Your task to perform on an android device: turn on location history Image 0: 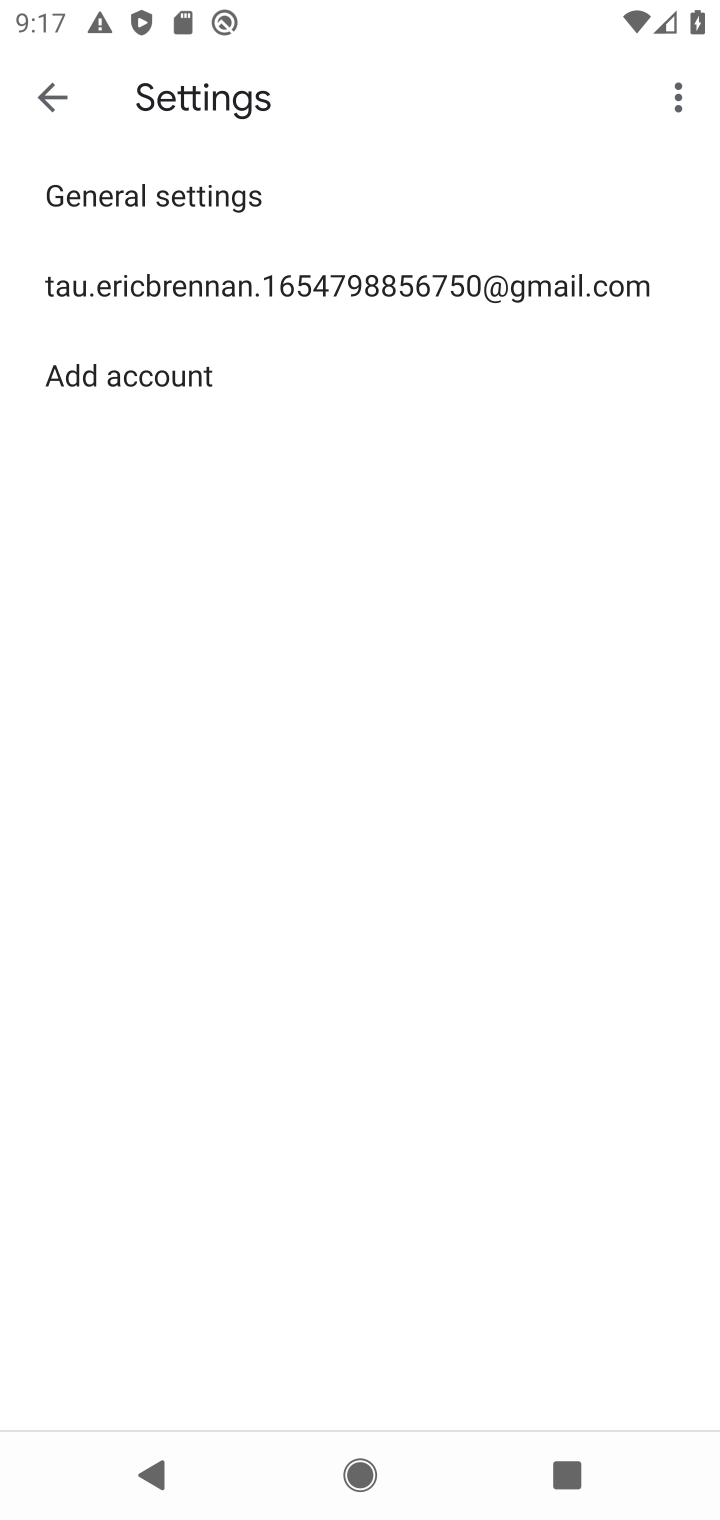
Step 0: press home button
Your task to perform on an android device: turn on location history Image 1: 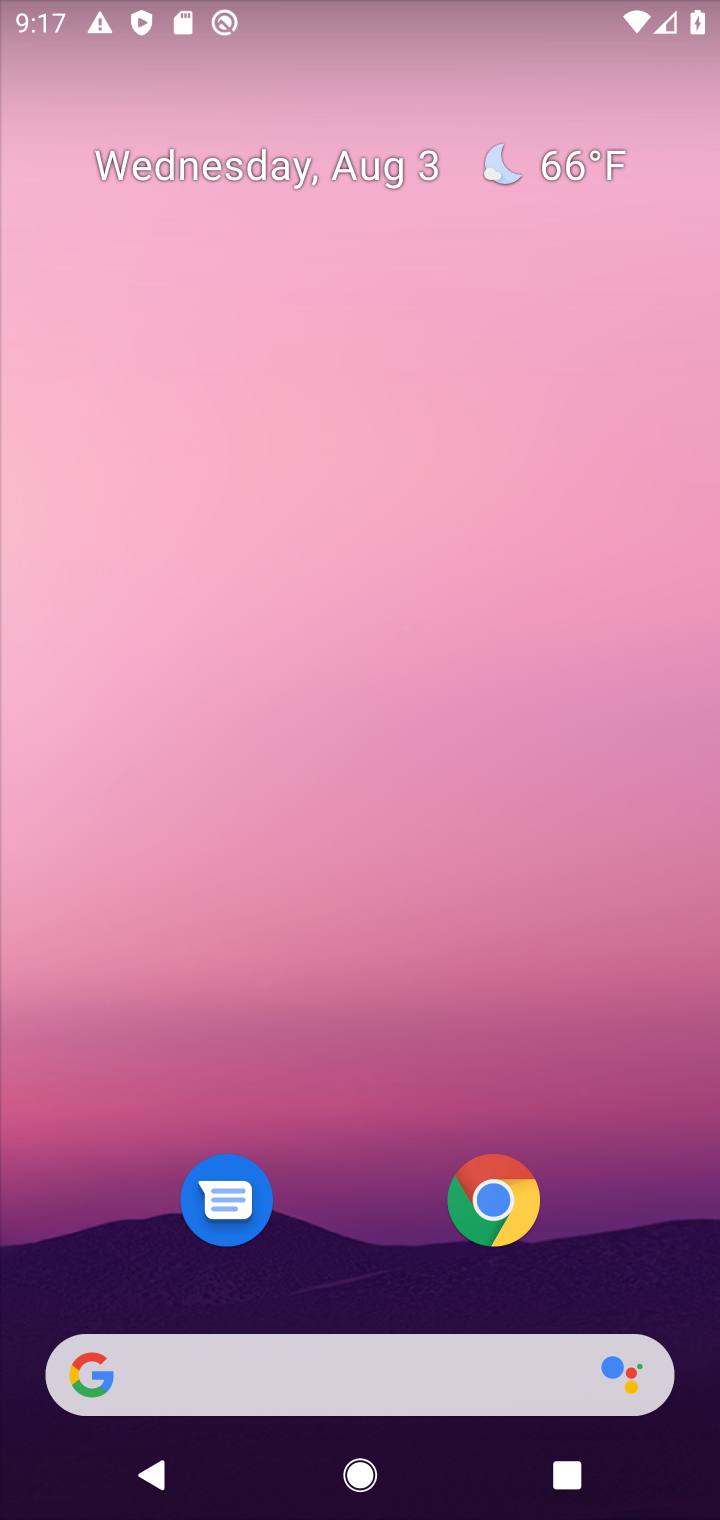
Step 1: drag from (273, 1346) to (358, 302)
Your task to perform on an android device: turn on location history Image 2: 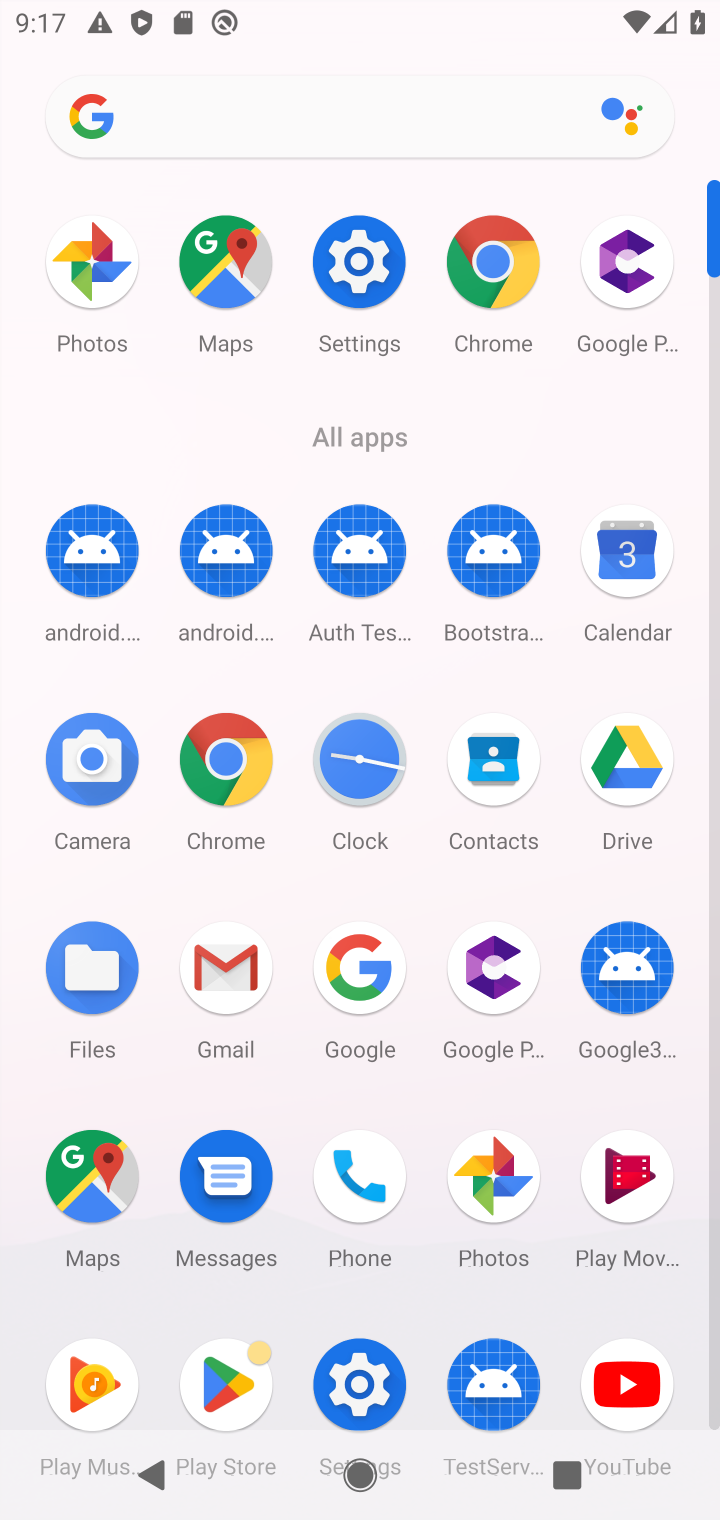
Step 2: click (374, 274)
Your task to perform on an android device: turn on location history Image 3: 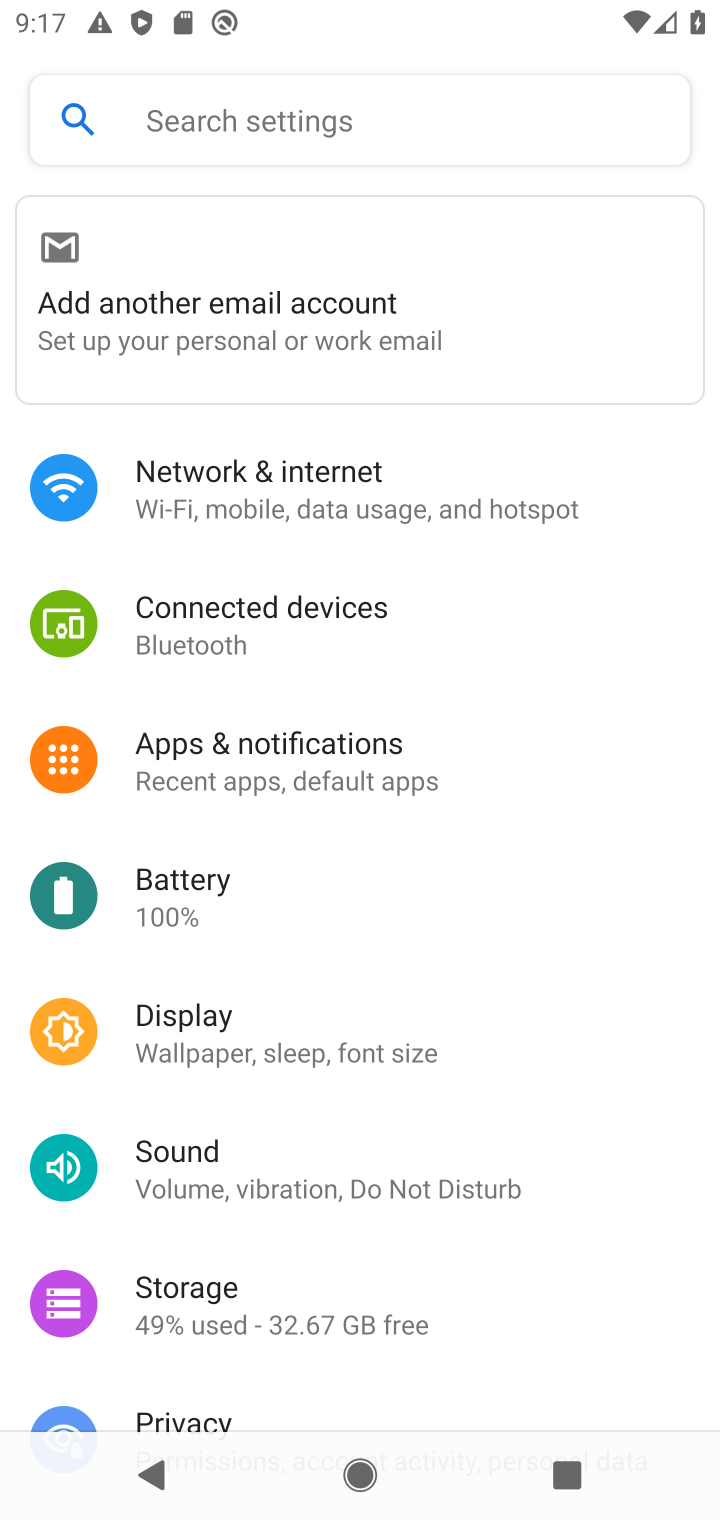
Step 3: drag from (243, 1340) to (266, 840)
Your task to perform on an android device: turn on location history Image 4: 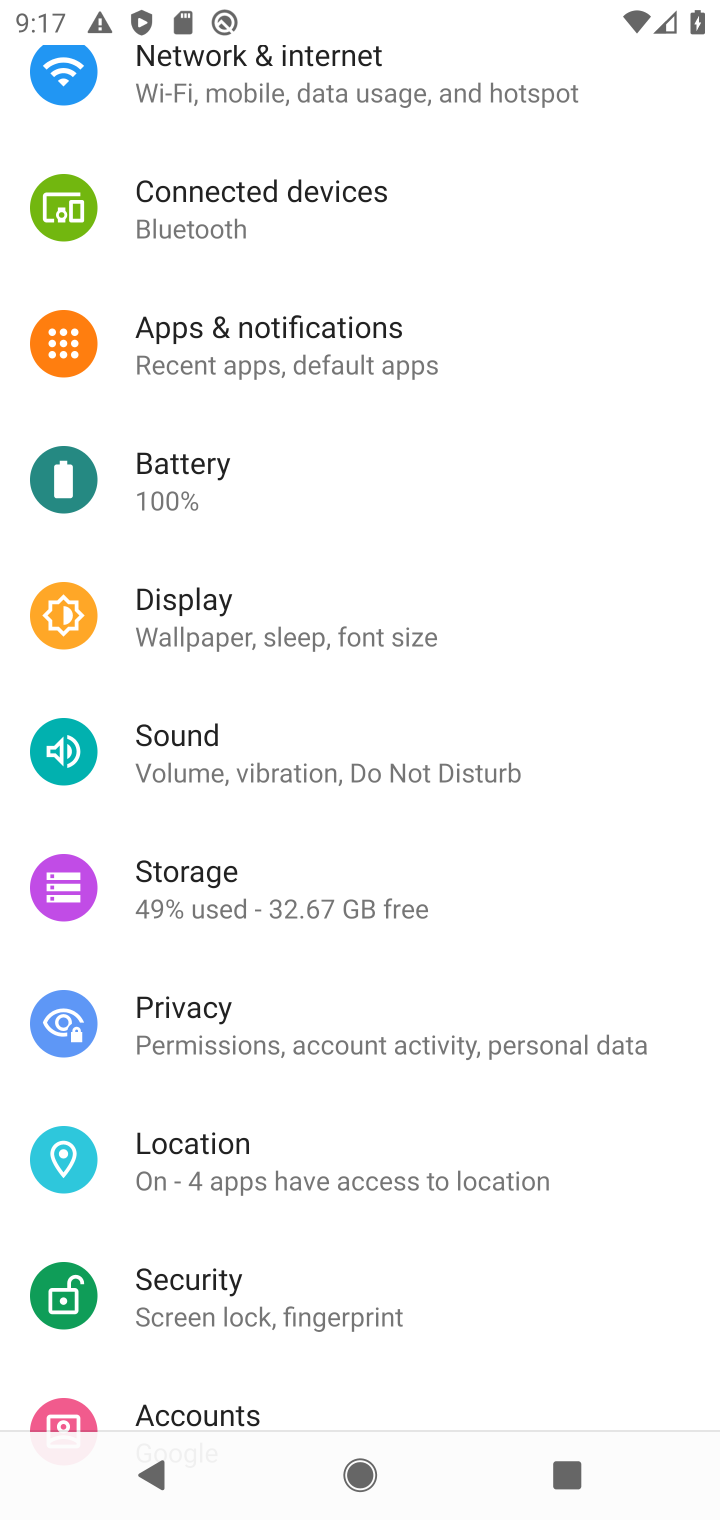
Step 4: click (275, 1177)
Your task to perform on an android device: turn on location history Image 5: 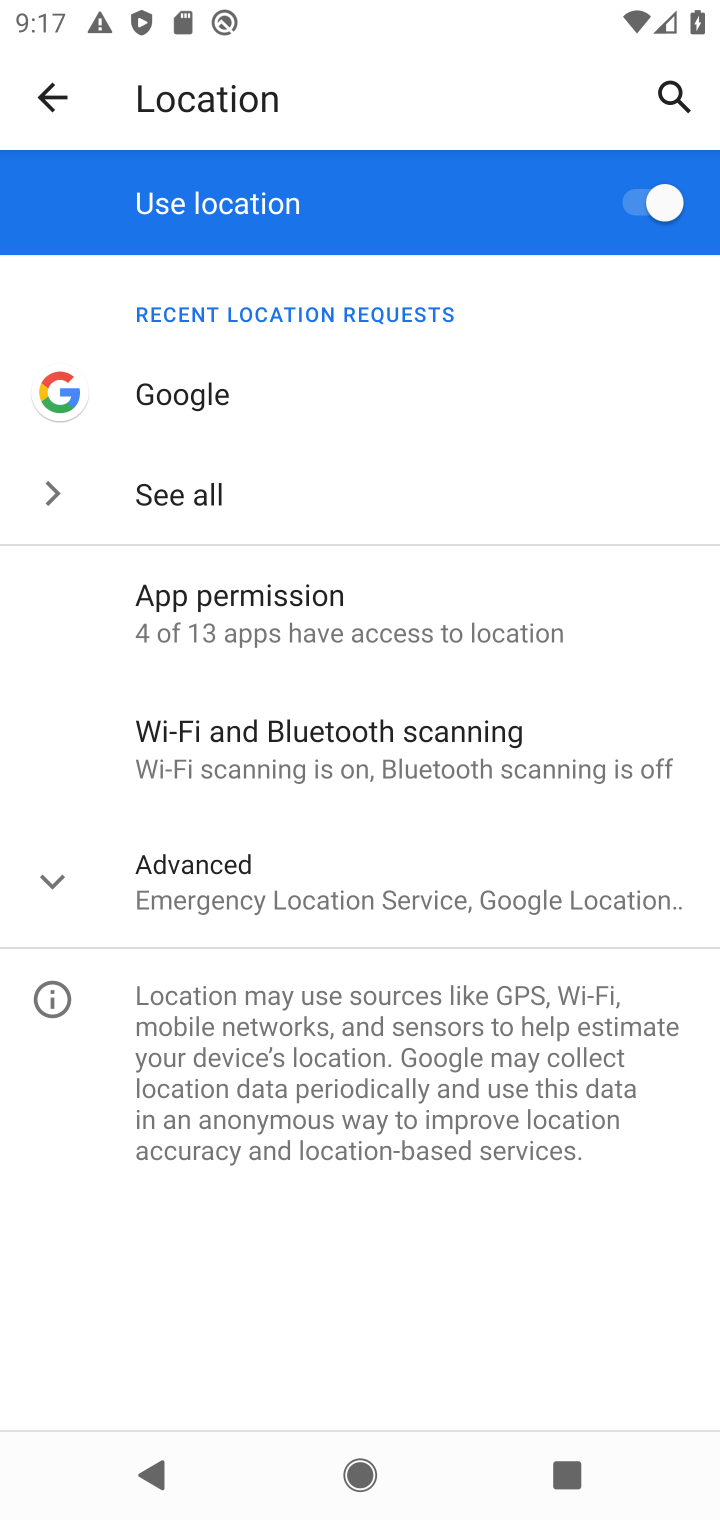
Step 5: task complete